Your task to perform on an android device: toggle notification dots Image 0: 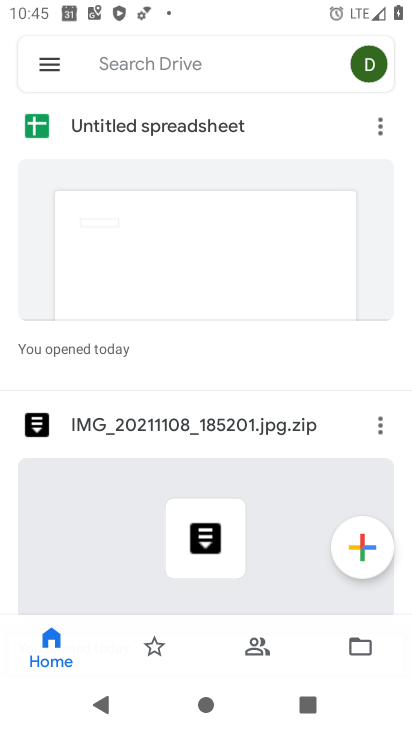
Step 0: press home button
Your task to perform on an android device: toggle notification dots Image 1: 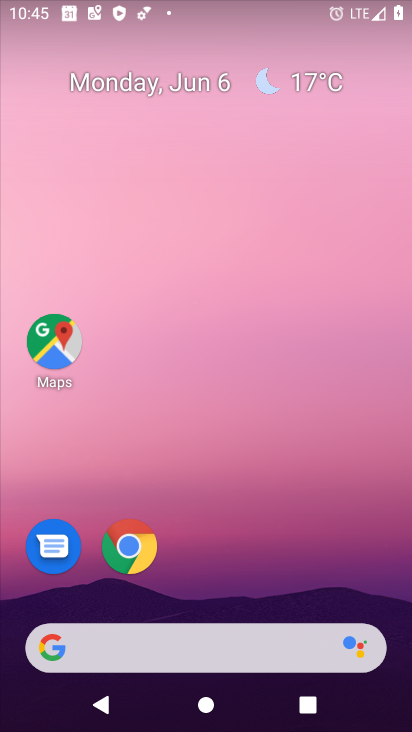
Step 1: drag from (218, 578) to (285, 81)
Your task to perform on an android device: toggle notification dots Image 2: 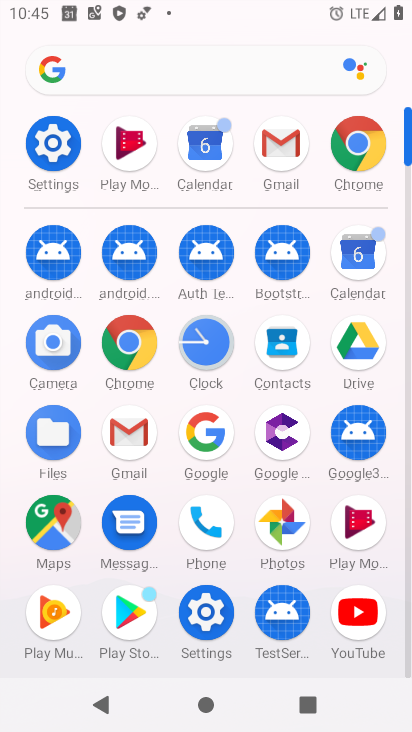
Step 2: click (206, 620)
Your task to perform on an android device: toggle notification dots Image 3: 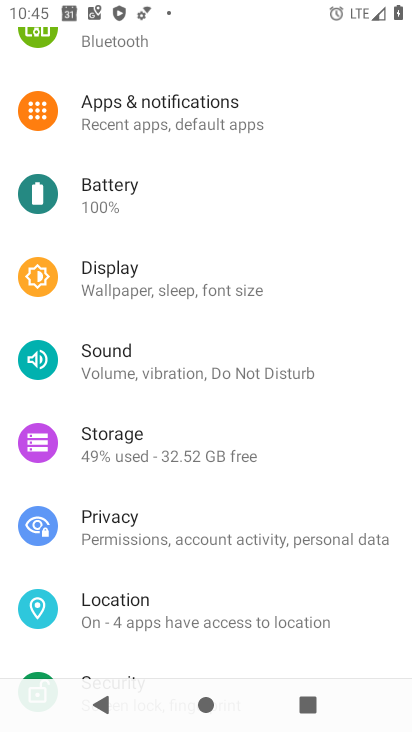
Step 3: drag from (193, 297) to (194, 408)
Your task to perform on an android device: toggle notification dots Image 4: 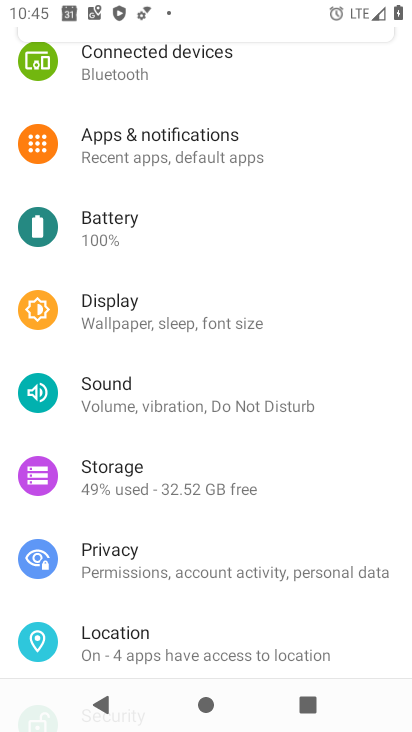
Step 4: click (193, 137)
Your task to perform on an android device: toggle notification dots Image 5: 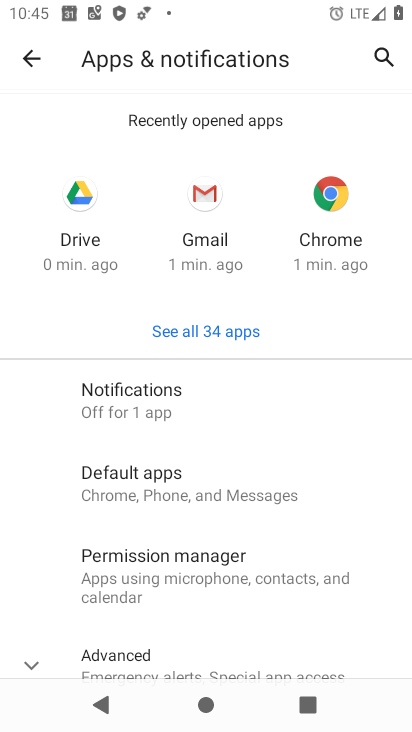
Step 5: click (174, 413)
Your task to perform on an android device: toggle notification dots Image 6: 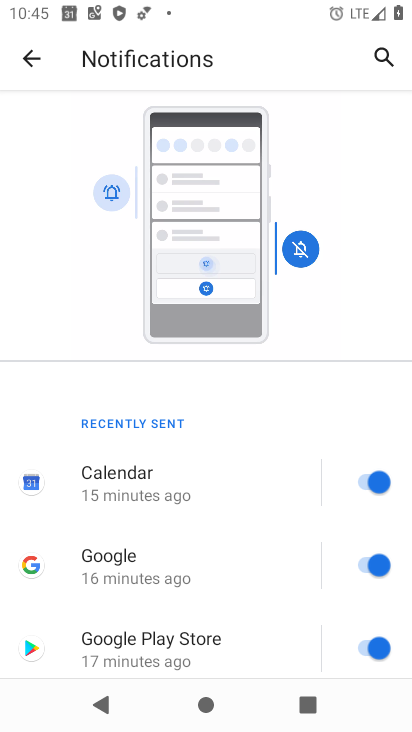
Step 6: drag from (179, 538) to (243, 231)
Your task to perform on an android device: toggle notification dots Image 7: 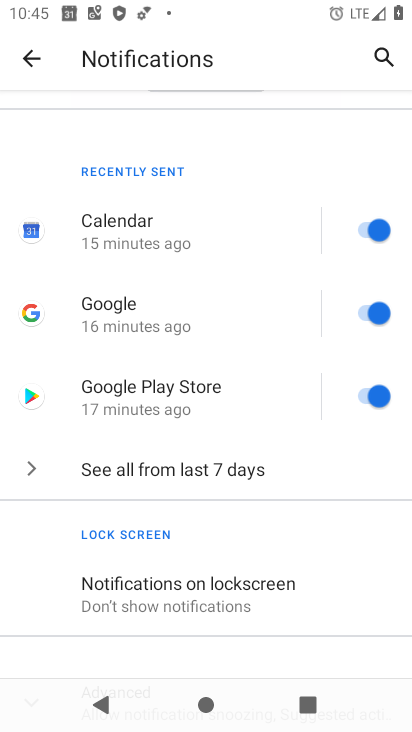
Step 7: drag from (201, 592) to (236, 379)
Your task to perform on an android device: toggle notification dots Image 8: 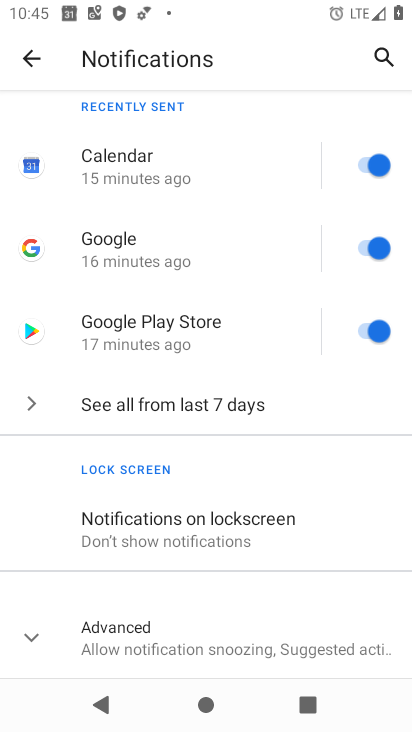
Step 8: click (232, 648)
Your task to perform on an android device: toggle notification dots Image 9: 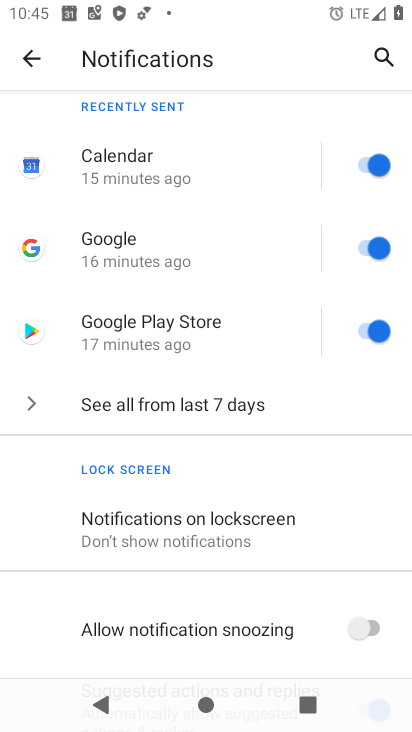
Step 9: drag from (274, 600) to (318, 292)
Your task to perform on an android device: toggle notification dots Image 10: 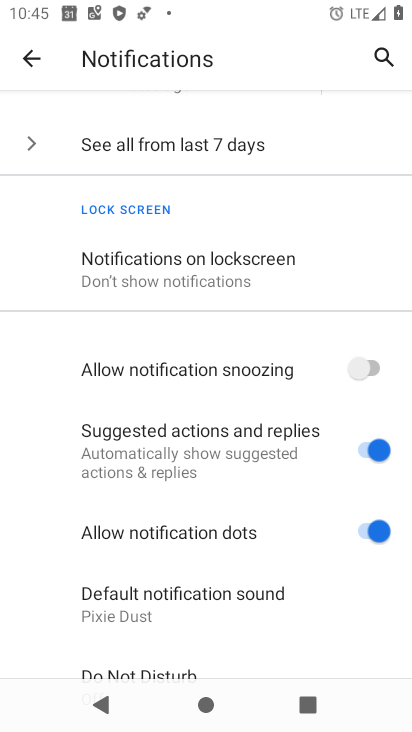
Step 10: click (349, 527)
Your task to perform on an android device: toggle notification dots Image 11: 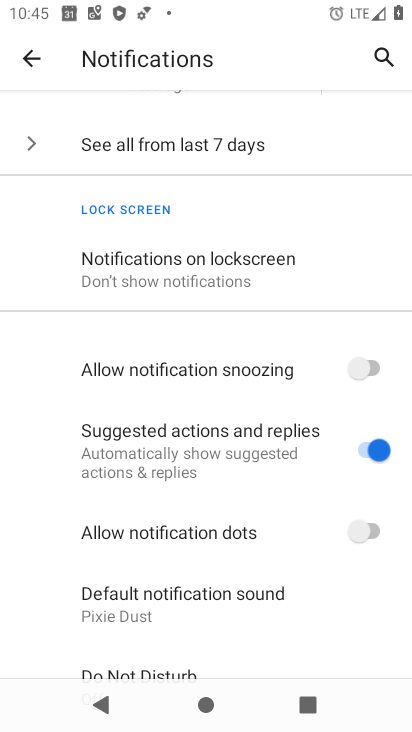
Step 11: task complete